Your task to perform on an android device: Check the news Image 0: 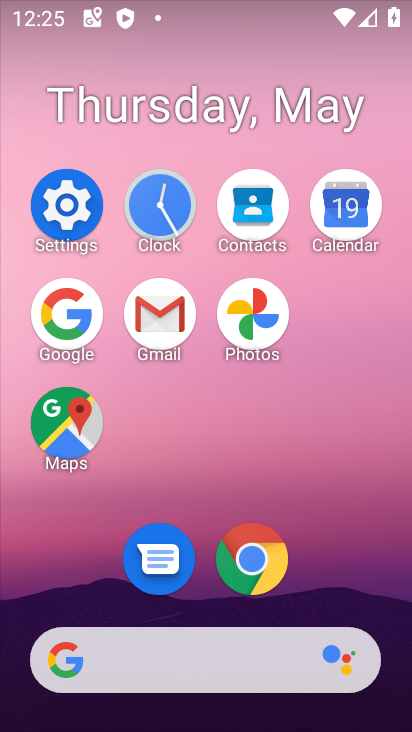
Step 0: click (99, 301)
Your task to perform on an android device: Check the news Image 1: 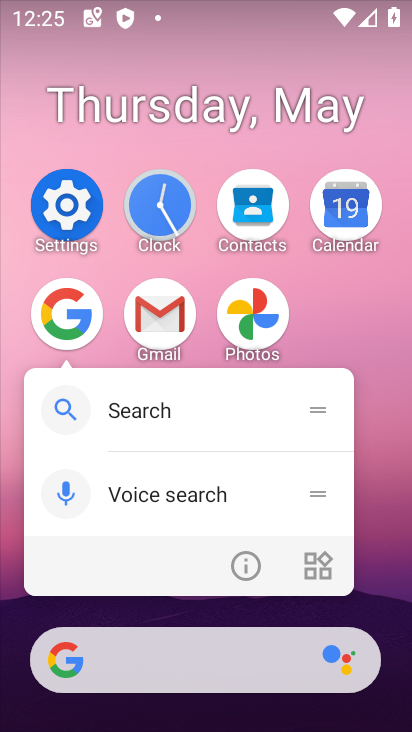
Step 1: click (76, 320)
Your task to perform on an android device: Check the news Image 2: 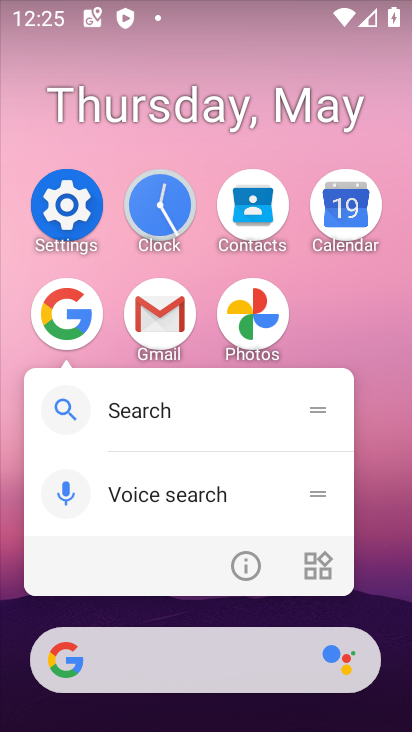
Step 2: click (78, 321)
Your task to perform on an android device: Check the news Image 3: 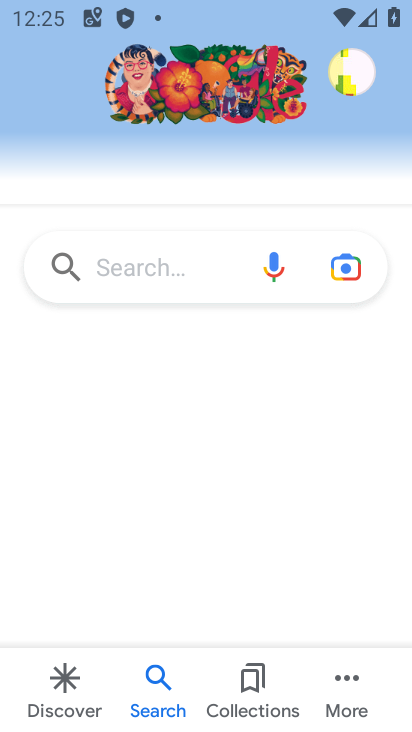
Step 3: click (147, 275)
Your task to perform on an android device: Check the news Image 4: 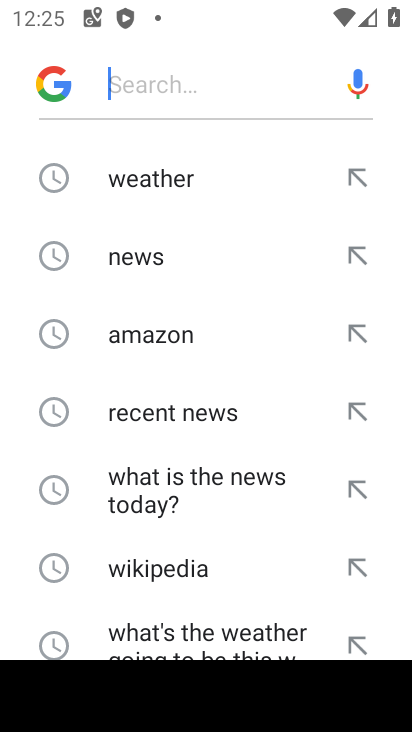
Step 4: click (133, 255)
Your task to perform on an android device: Check the news Image 5: 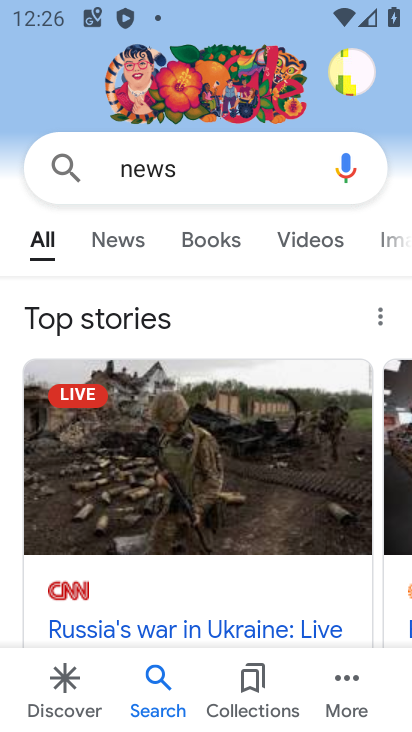
Step 5: task complete